Your task to perform on an android device: See recent photos Image 0: 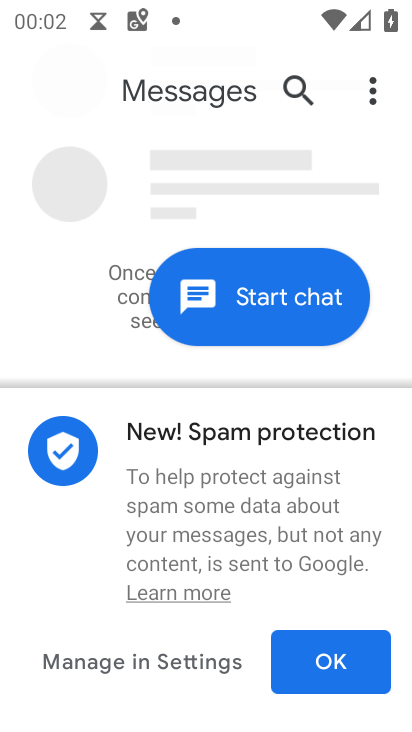
Step 0: press home button
Your task to perform on an android device: See recent photos Image 1: 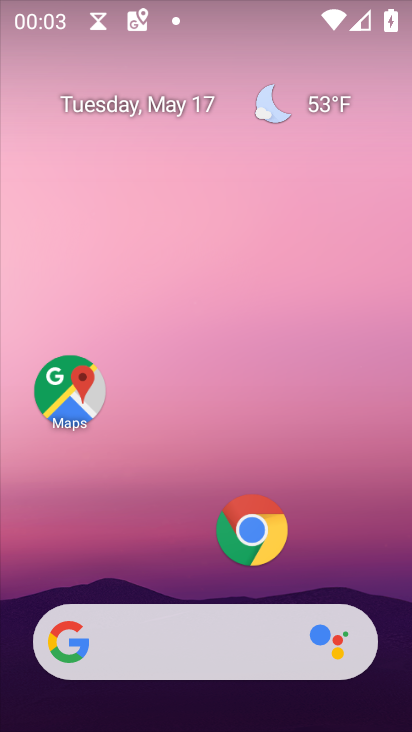
Step 1: drag from (354, 573) to (293, 271)
Your task to perform on an android device: See recent photos Image 2: 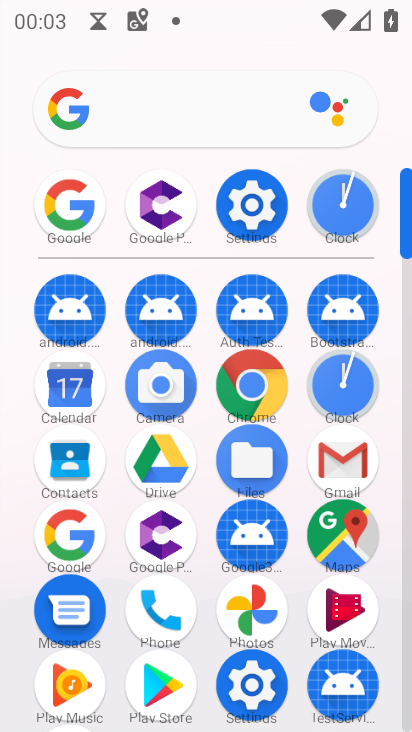
Step 2: click (269, 620)
Your task to perform on an android device: See recent photos Image 3: 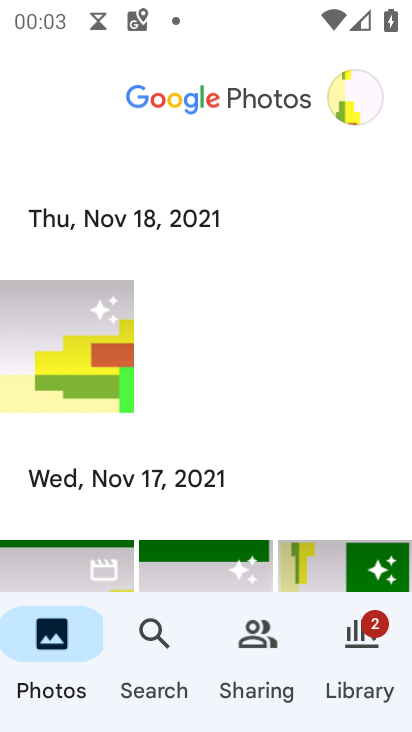
Step 3: click (141, 629)
Your task to perform on an android device: See recent photos Image 4: 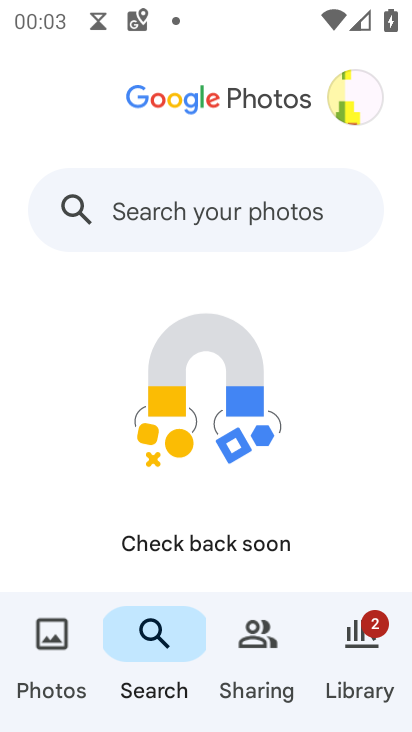
Step 4: drag from (289, 466) to (255, 105)
Your task to perform on an android device: See recent photos Image 5: 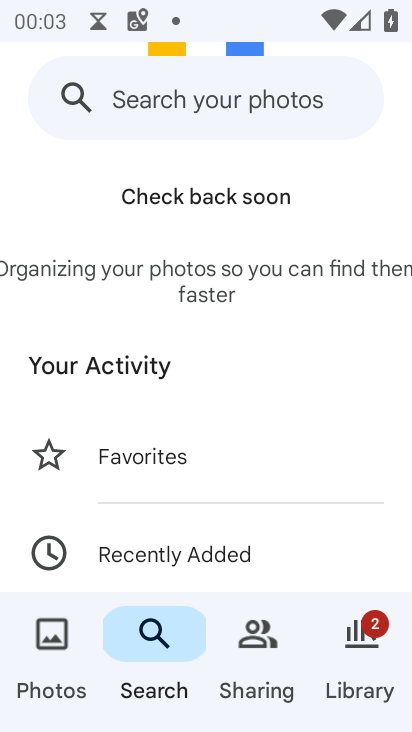
Step 5: click (157, 554)
Your task to perform on an android device: See recent photos Image 6: 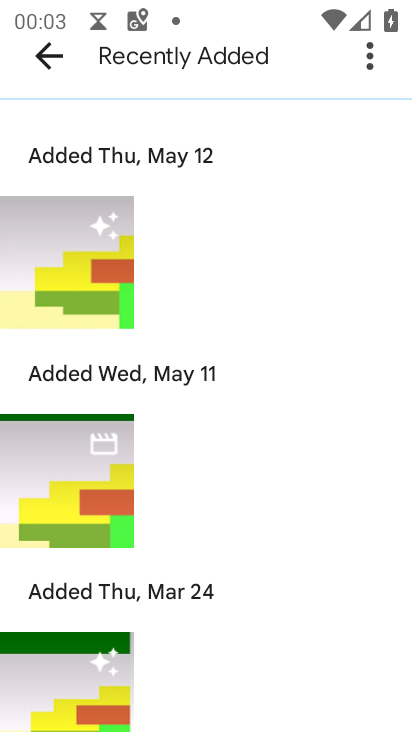
Step 6: task complete